Your task to perform on an android device: Check the weather Image 0: 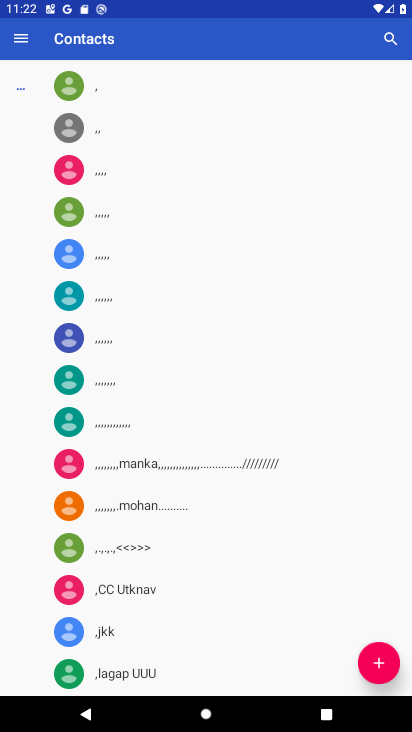
Step 0: press home button
Your task to perform on an android device: Check the weather Image 1: 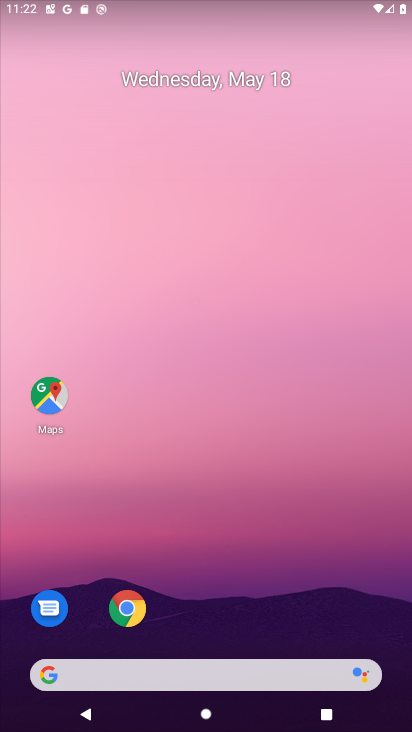
Step 1: click (129, 624)
Your task to perform on an android device: Check the weather Image 2: 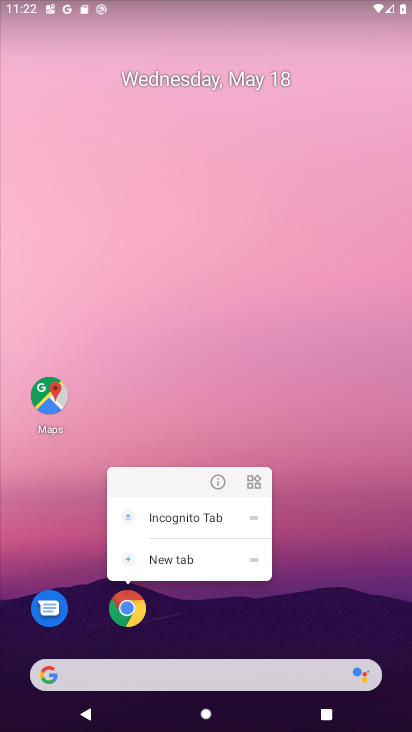
Step 2: click (130, 624)
Your task to perform on an android device: Check the weather Image 3: 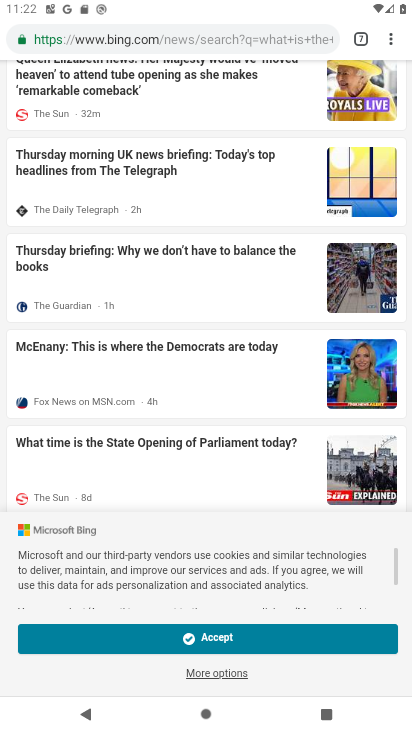
Step 3: click (356, 38)
Your task to perform on an android device: Check the weather Image 4: 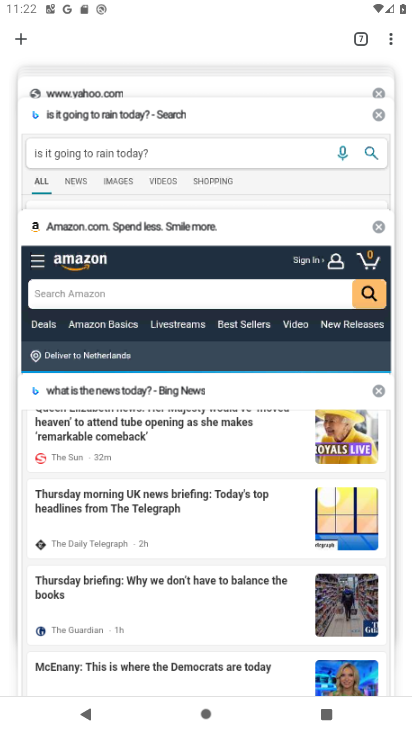
Step 4: click (28, 45)
Your task to perform on an android device: Check the weather Image 5: 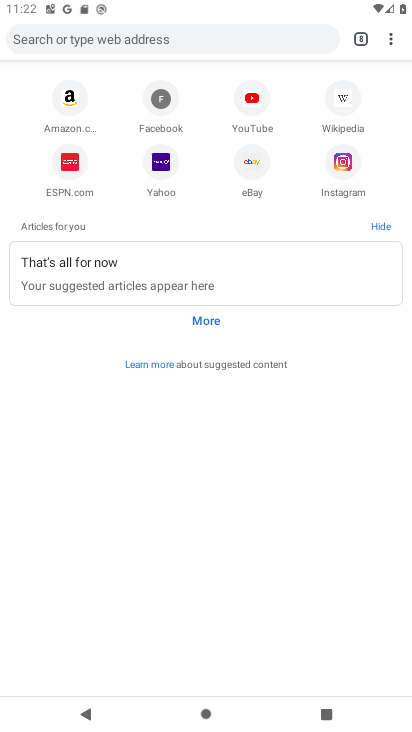
Step 5: click (69, 38)
Your task to perform on an android device: Check the weather Image 6: 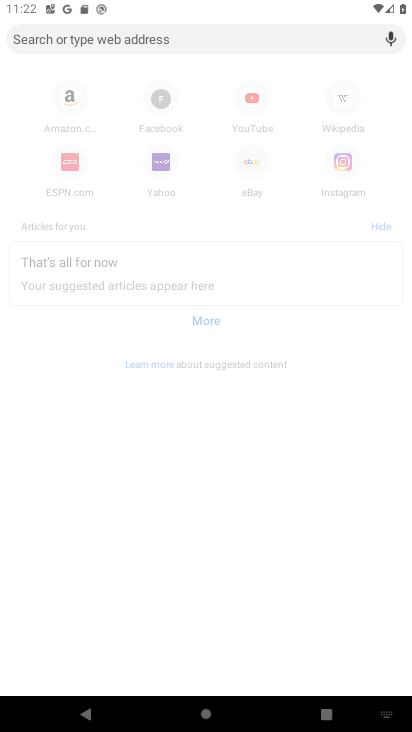
Step 6: type "weather"
Your task to perform on an android device: Check the weather Image 7: 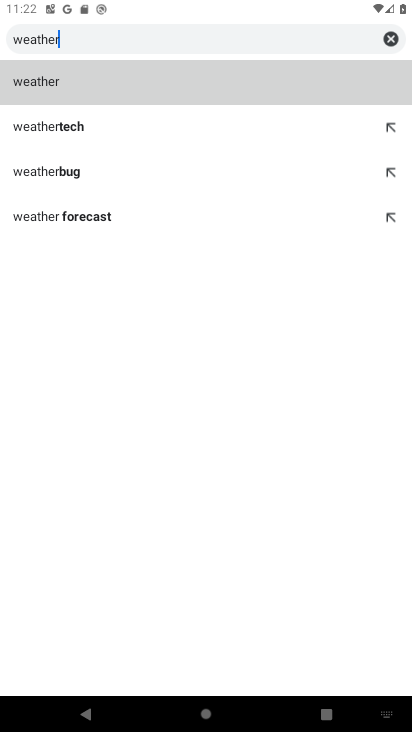
Step 7: click (15, 78)
Your task to perform on an android device: Check the weather Image 8: 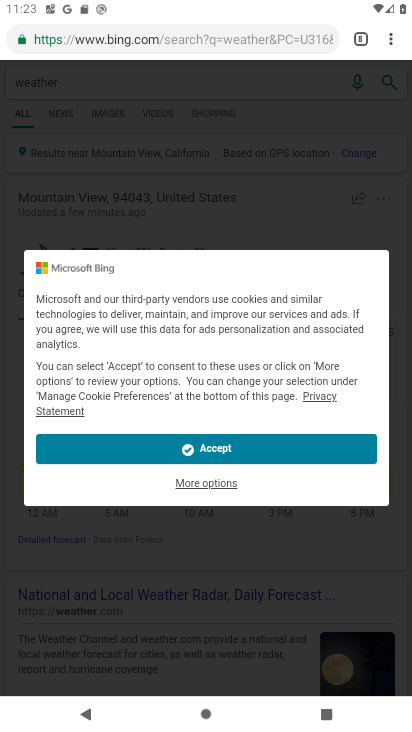
Step 8: click (241, 463)
Your task to perform on an android device: Check the weather Image 9: 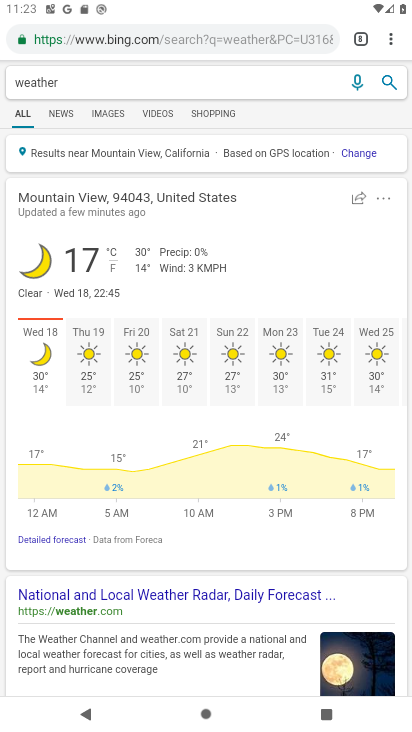
Step 9: task complete